Your task to perform on an android device: see tabs open on other devices in the chrome app Image 0: 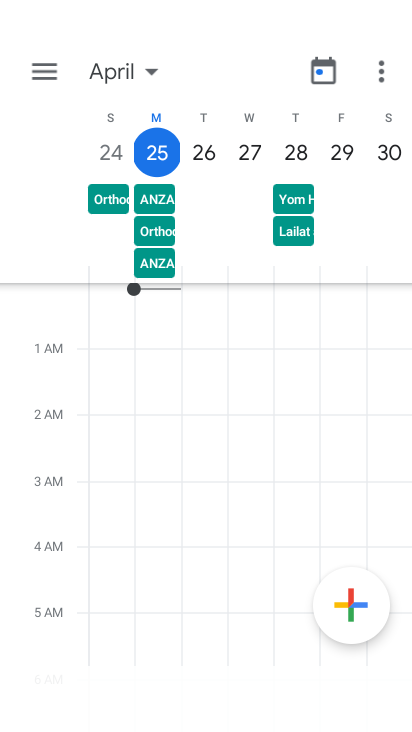
Step 0: press back button
Your task to perform on an android device: see tabs open on other devices in the chrome app Image 1: 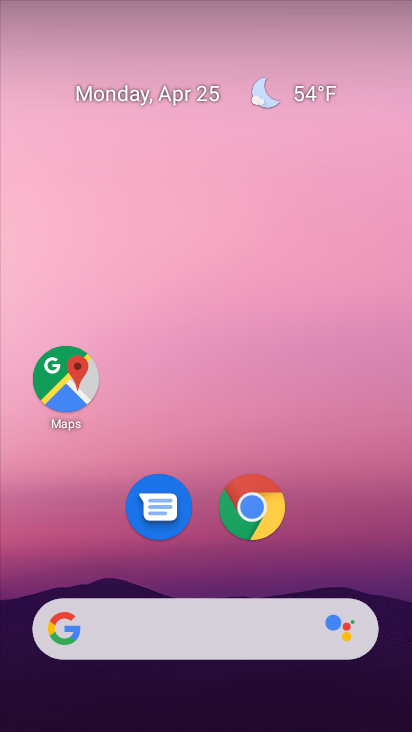
Step 1: drag from (340, 496) to (284, 15)
Your task to perform on an android device: see tabs open on other devices in the chrome app Image 2: 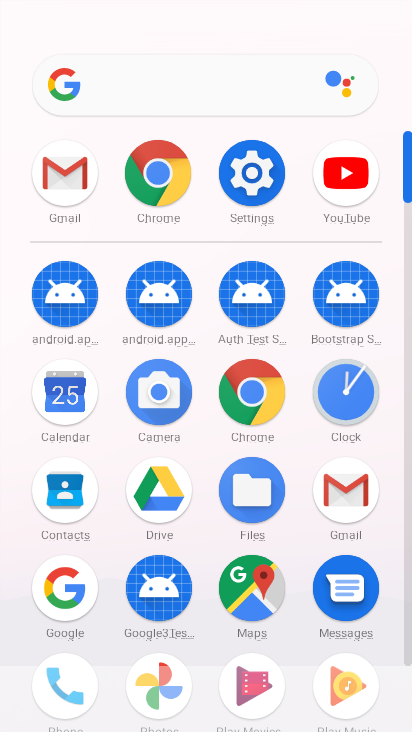
Step 2: click (250, 391)
Your task to perform on an android device: see tabs open on other devices in the chrome app Image 3: 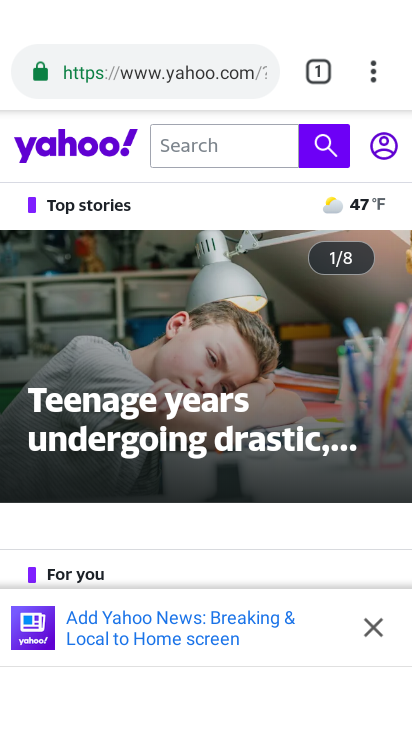
Step 3: task complete